Your task to perform on an android device: allow cookies in the chrome app Image 0: 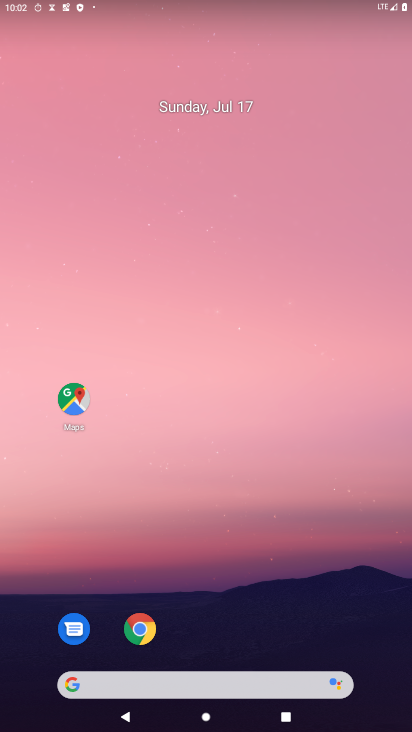
Step 0: drag from (228, 716) to (280, 57)
Your task to perform on an android device: allow cookies in the chrome app Image 1: 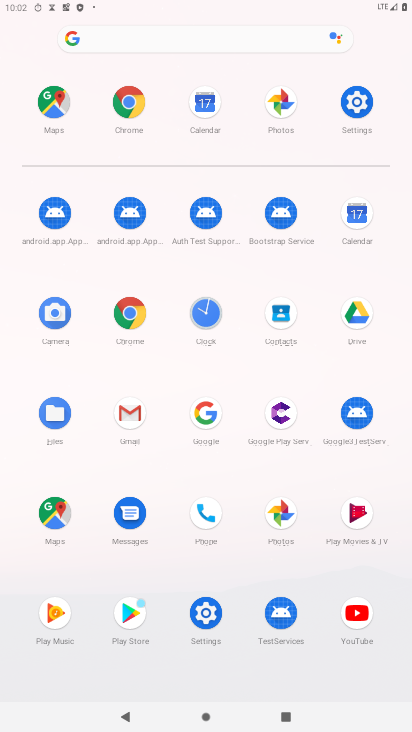
Step 1: click (125, 314)
Your task to perform on an android device: allow cookies in the chrome app Image 2: 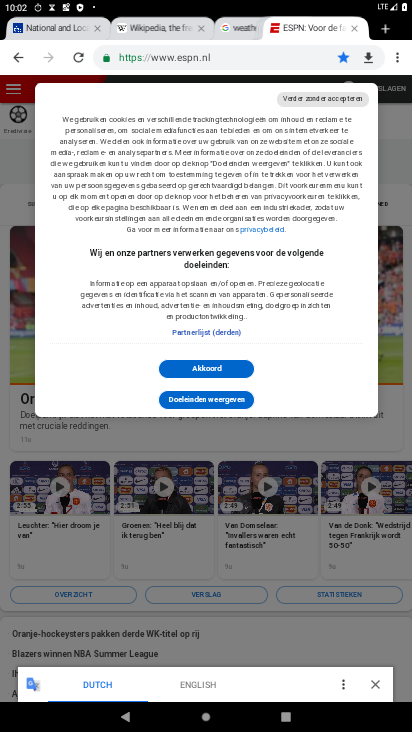
Step 2: click (399, 63)
Your task to perform on an android device: allow cookies in the chrome app Image 3: 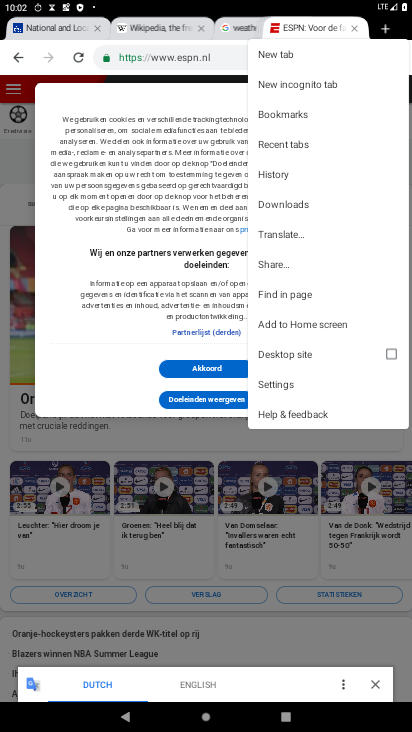
Step 3: click (273, 381)
Your task to perform on an android device: allow cookies in the chrome app Image 4: 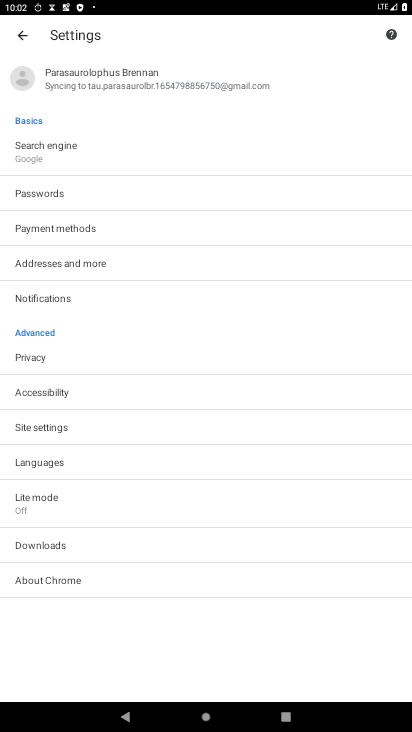
Step 4: click (41, 418)
Your task to perform on an android device: allow cookies in the chrome app Image 5: 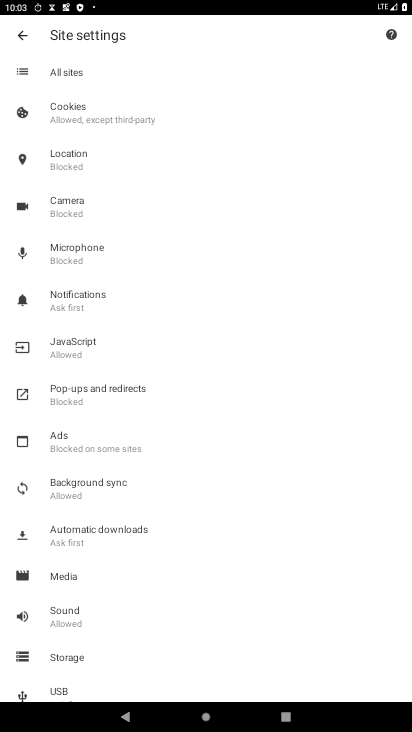
Step 5: click (68, 112)
Your task to perform on an android device: allow cookies in the chrome app Image 6: 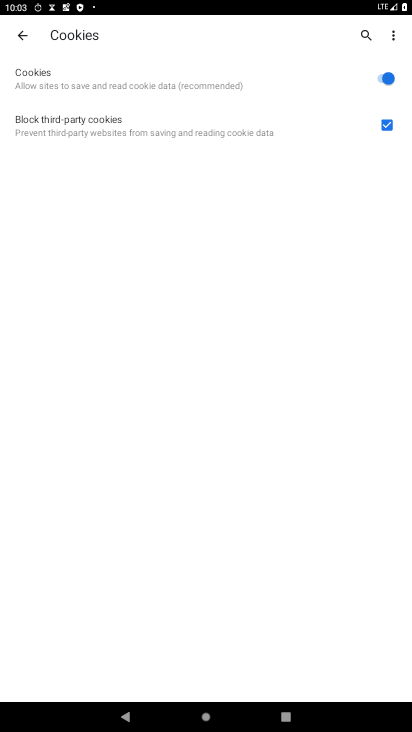
Step 6: task complete